Your task to perform on an android device: Go to privacy settings Image 0: 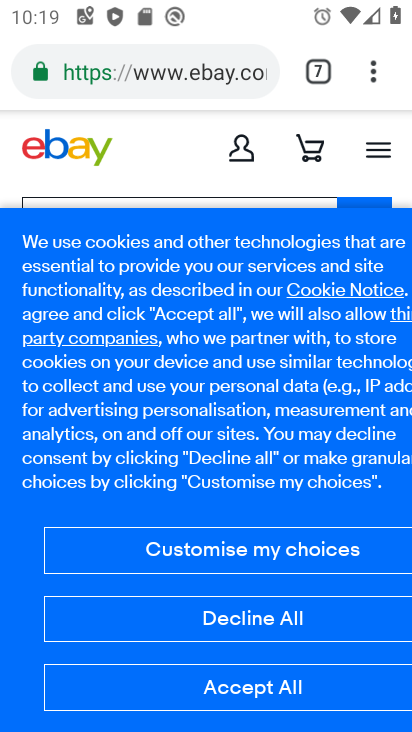
Step 0: press home button
Your task to perform on an android device: Go to privacy settings Image 1: 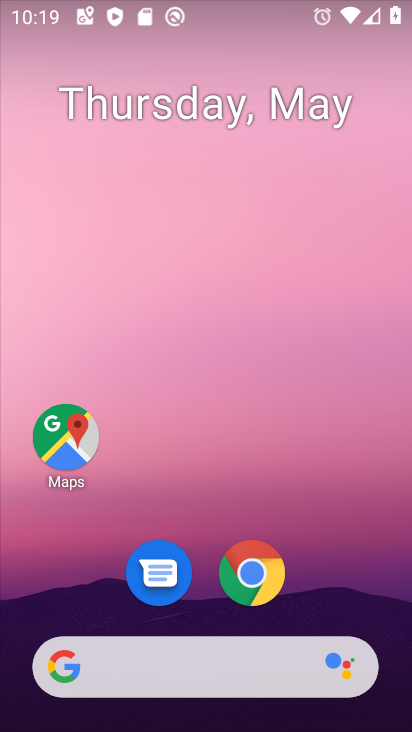
Step 1: drag from (213, 605) to (213, 157)
Your task to perform on an android device: Go to privacy settings Image 2: 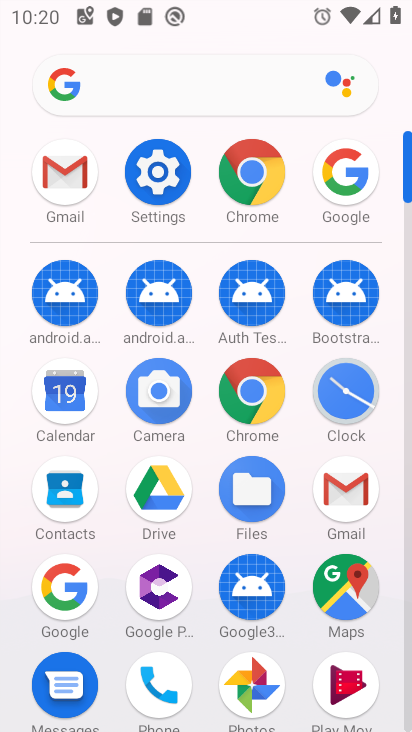
Step 2: click (171, 158)
Your task to perform on an android device: Go to privacy settings Image 3: 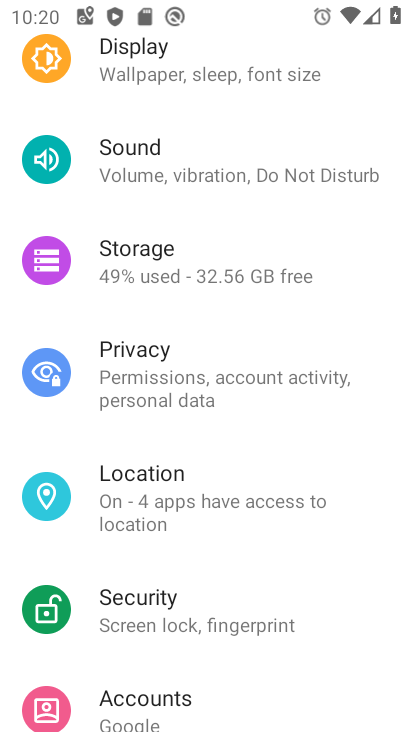
Step 3: drag from (212, 567) to (210, 257)
Your task to perform on an android device: Go to privacy settings Image 4: 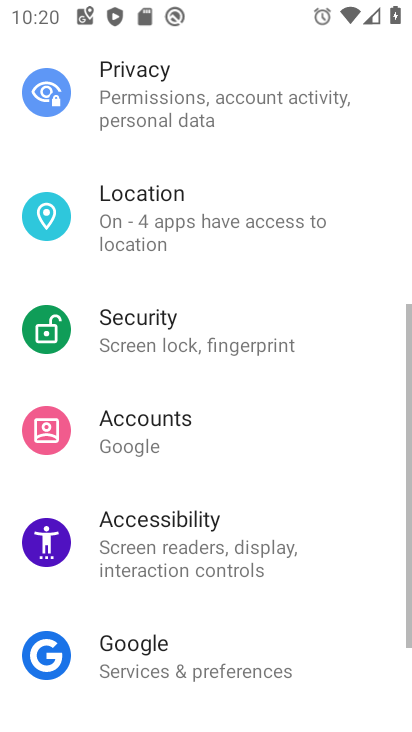
Step 4: drag from (218, 577) to (245, 219)
Your task to perform on an android device: Go to privacy settings Image 5: 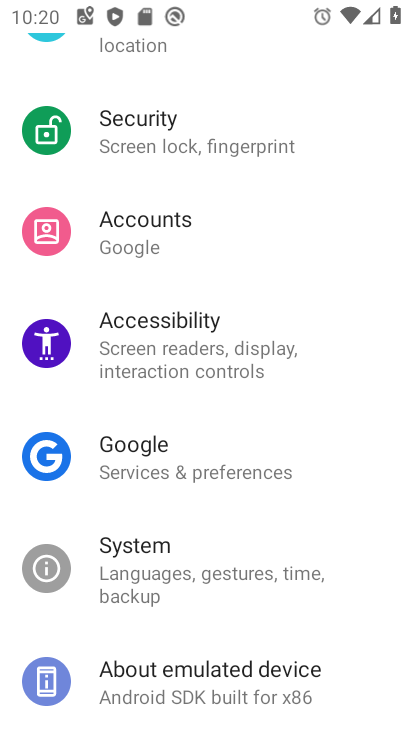
Step 5: drag from (211, 639) to (239, 220)
Your task to perform on an android device: Go to privacy settings Image 6: 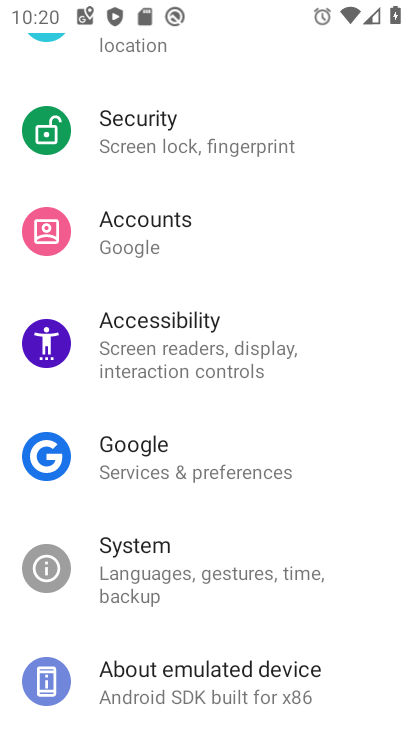
Step 6: drag from (206, 624) to (218, 245)
Your task to perform on an android device: Go to privacy settings Image 7: 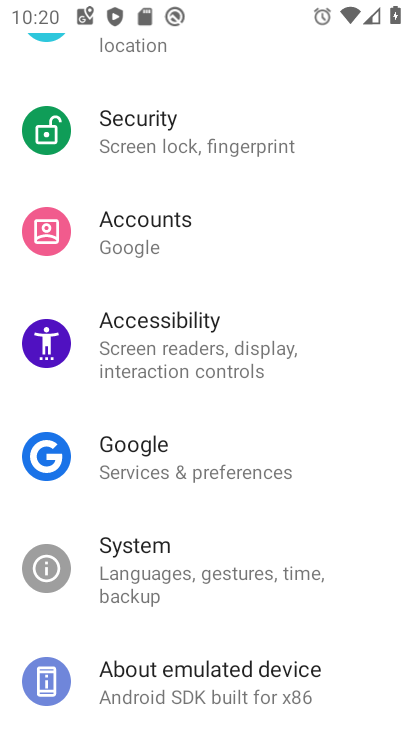
Step 7: drag from (180, 651) to (192, 283)
Your task to perform on an android device: Go to privacy settings Image 8: 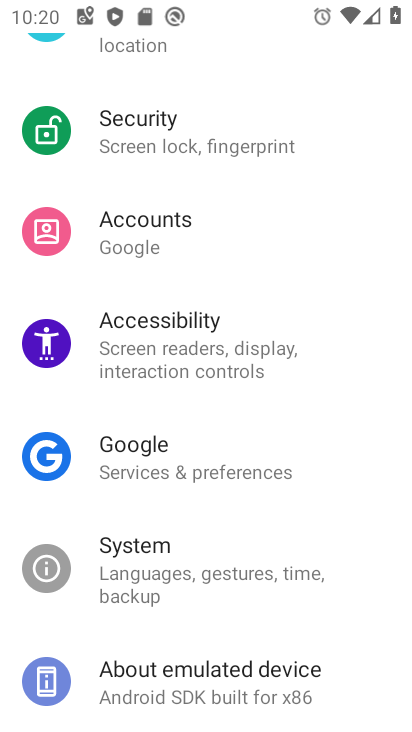
Step 8: drag from (193, 279) to (216, 589)
Your task to perform on an android device: Go to privacy settings Image 9: 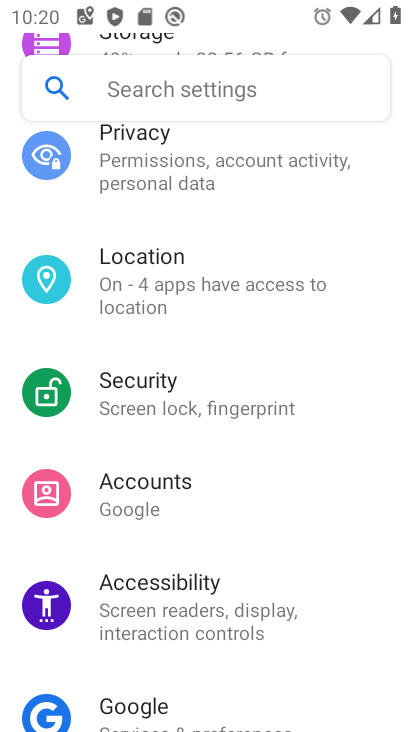
Step 9: drag from (200, 314) to (239, 612)
Your task to perform on an android device: Go to privacy settings Image 10: 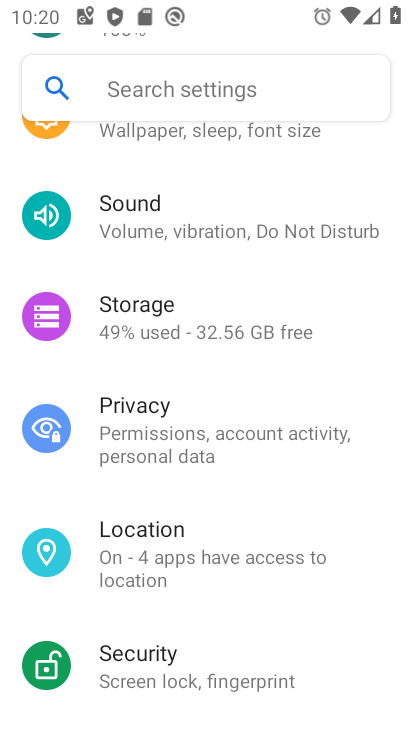
Step 10: click (181, 434)
Your task to perform on an android device: Go to privacy settings Image 11: 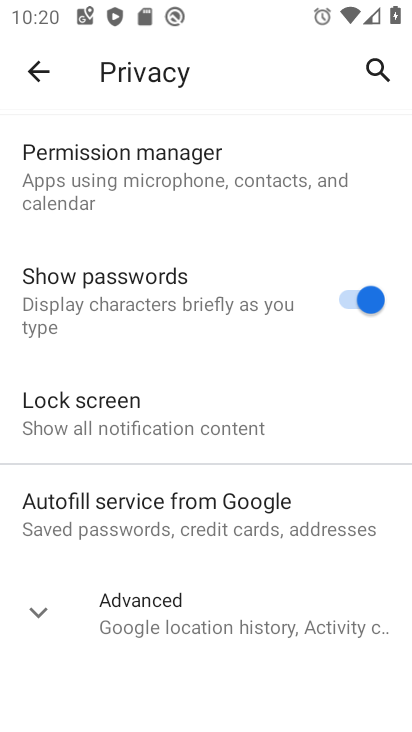
Step 11: task complete